Your task to perform on an android device: Go to Wikipedia Image 0: 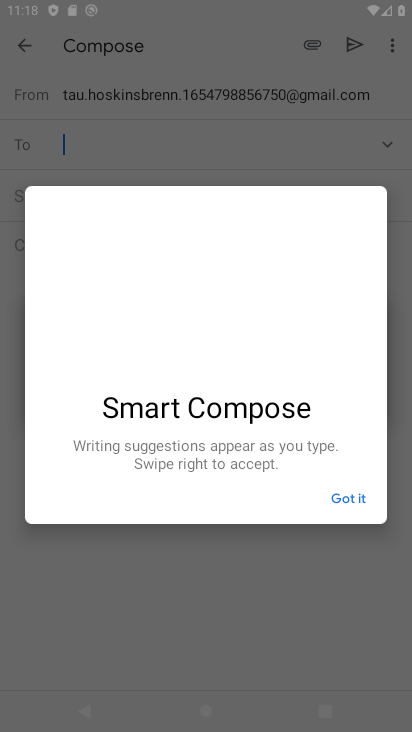
Step 0: press home button
Your task to perform on an android device: Go to Wikipedia Image 1: 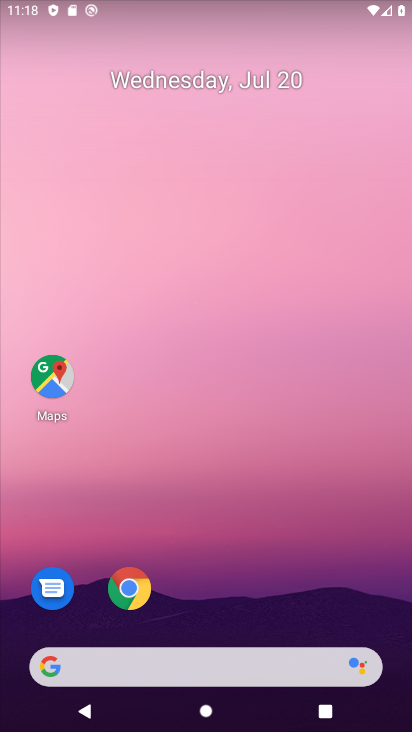
Step 1: click (49, 663)
Your task to perform on an android device: Go to Wikipedia Image 2: 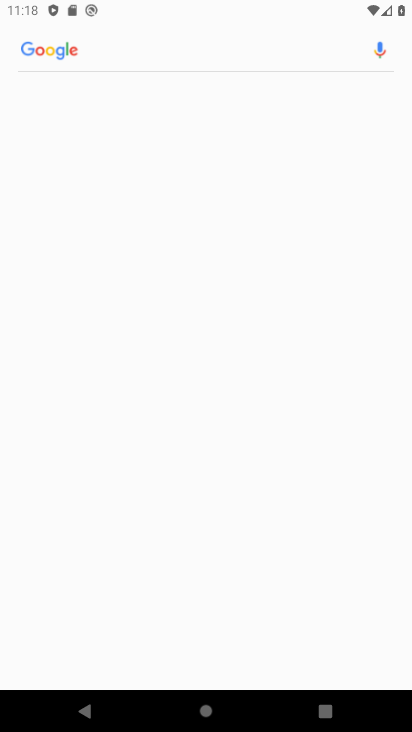
Step 2: click (88, 48)
Your task to perform on an android device: Go to Wikipedia Image 3: 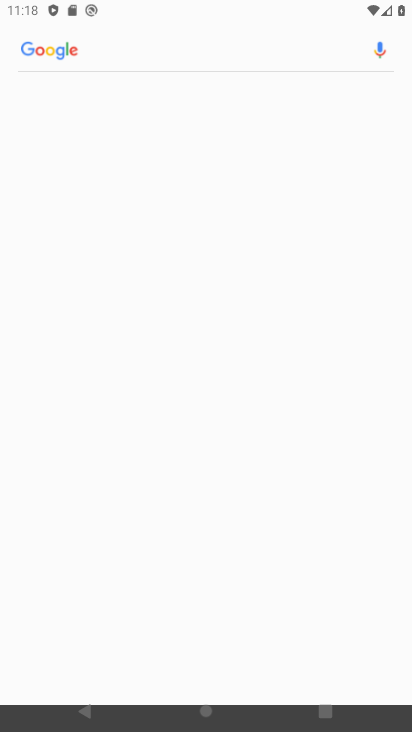
Step 3: type " Wikipedia"
Your task to perform on an android device: Go to Wikipedia Image 4: 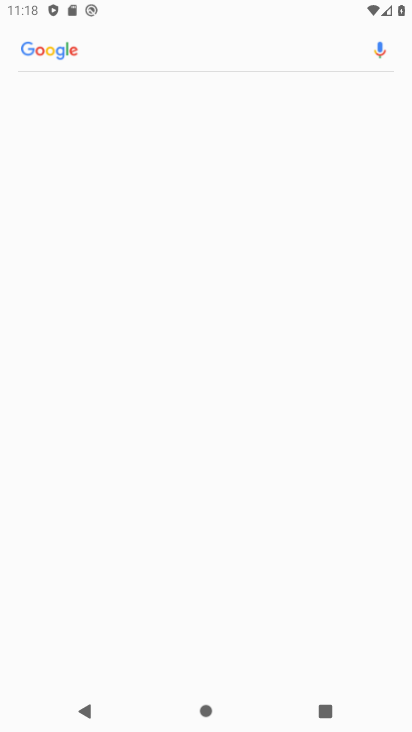
Step 4: click (88, 48)
Your task to perform on an android device: Go to Wikipedia Image 5: 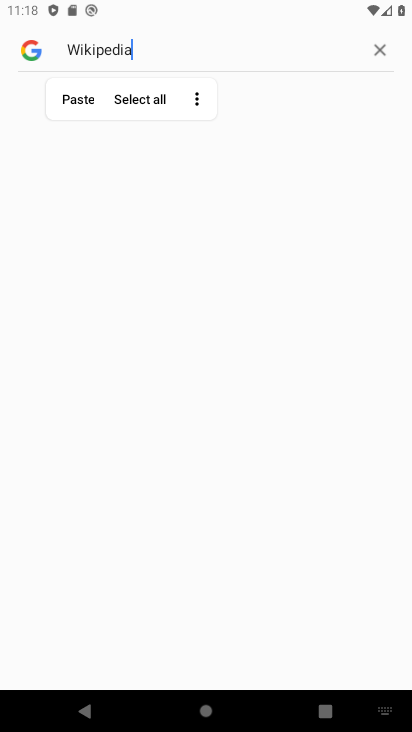
Step 5: press enter
Your task to perform on an android device: Go to Wikipedia Image 6: 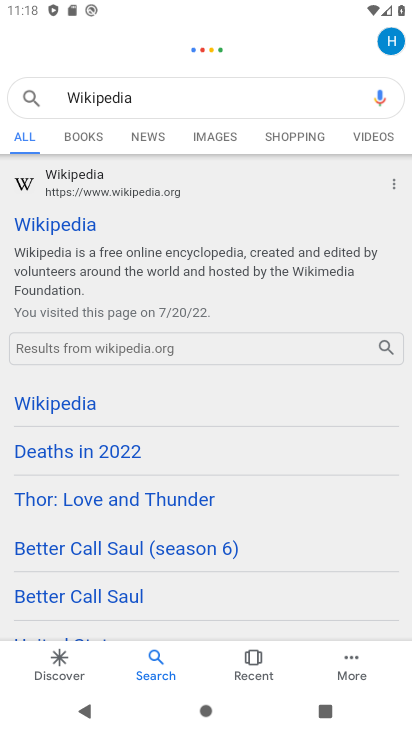
Step 6: click (20, 221)
Your task to perform on an android device: Go to Wikipedia Image 7: 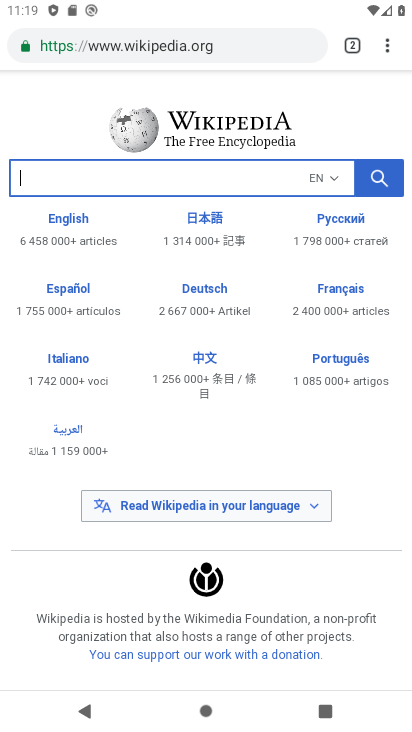
Step 7: task complete